Your task to perform on an android device: Go to accessibility settings Image 0: 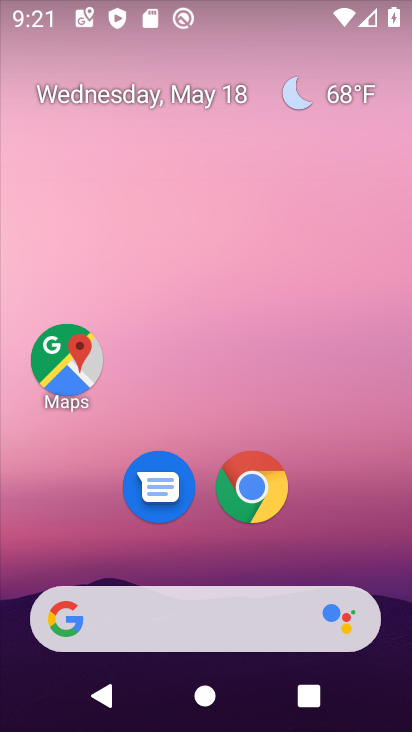
Step 0: drag from (347, 519) to (283, 145)
Your task to perform on an android device: Go to accessibility settings Image 1: 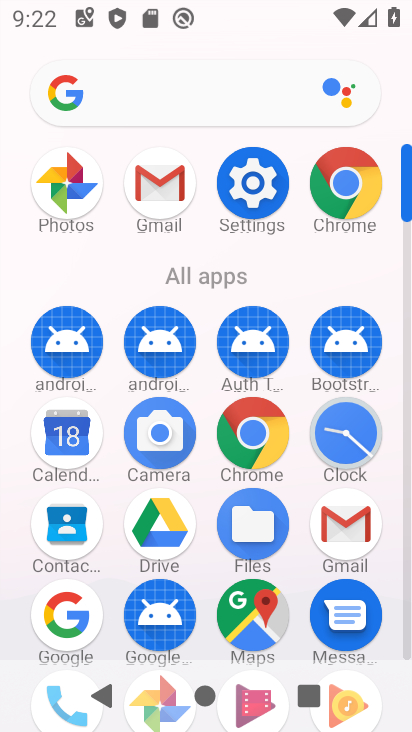
Step 1: click (260, 200)
Your task to perform on an android device: Go to accessibility settings Image 2: 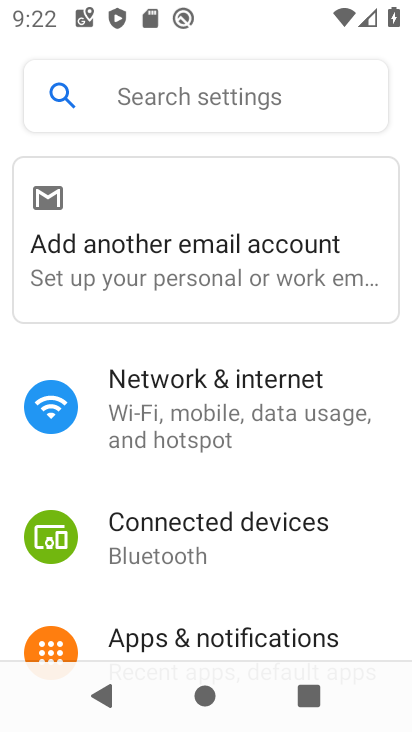
Step 2: drag from (271, 573) to (238, 172)
Your task to perform on an android device: Go to accessibility settings Image 3: 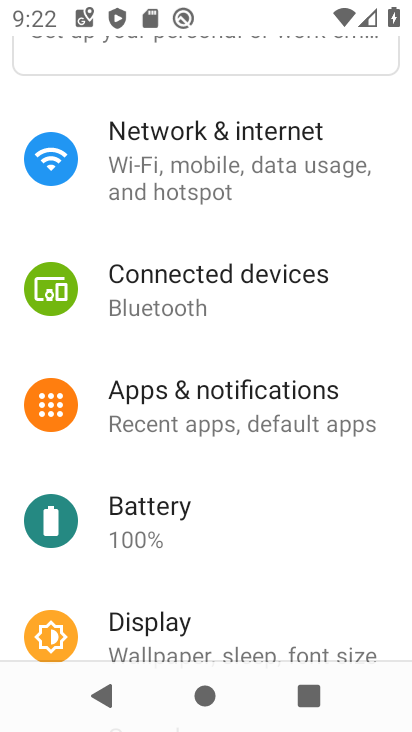
Step 3: drag from (238, 537) to (252, 227)
Your task to perform on an android device: Go to accessibility settings Image 4: 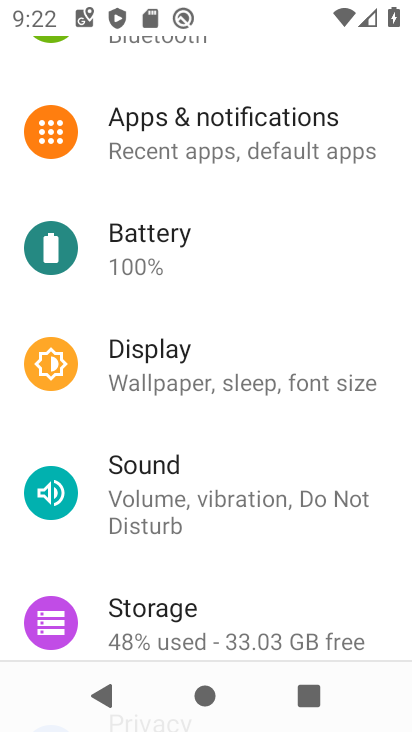
Step 4: drag from (272, 521) to (280, 233)
Your task to perform on an android device: Go to accessibility settings Image 5: 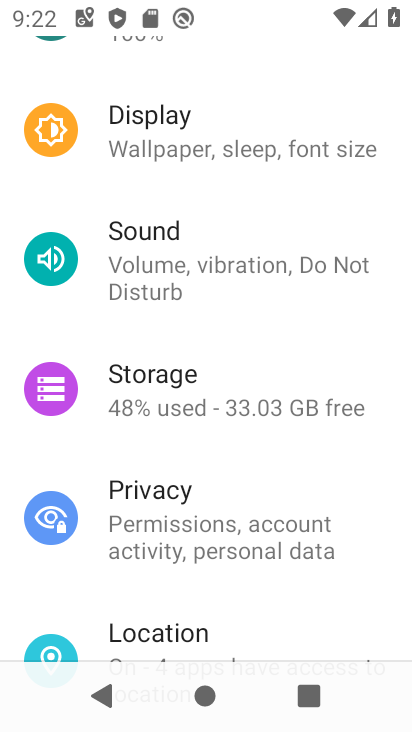
Step 5: drag from (286, 541) to (274, 210)
Your task to perform on an android device: Go to accessibility settings Image 6: 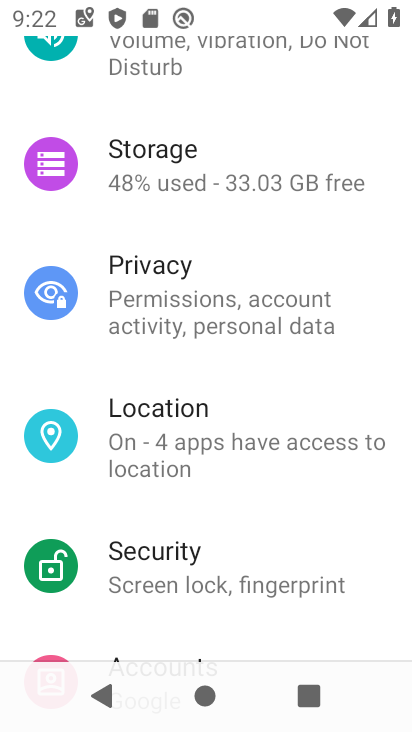
Step 6: drag from (234, 602) to (246, 191)
Your task to perform on an android device: Go to accessibility settings Image 7: 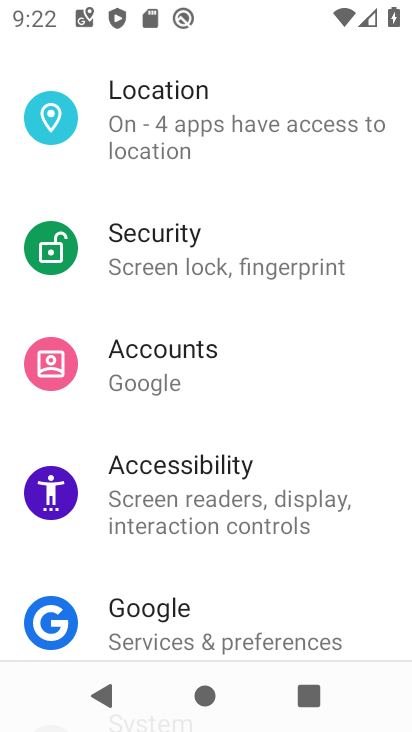
Step 7: click (224, 486)
Your task to perform on an android device: Go to accessibility settings Image 8: 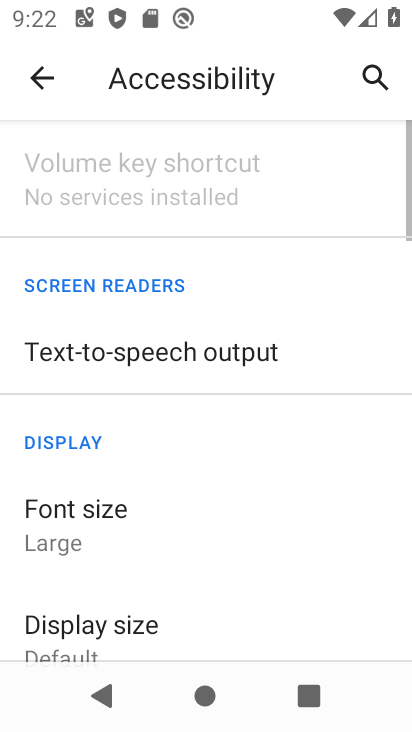
Step 8: task complete